Your task to perform on an android device: toggle pop-ups in chrome Image 0: 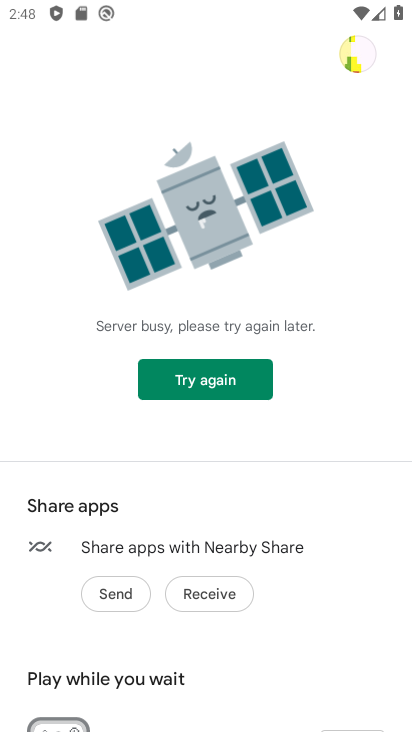
Step 0: press home button
Your task to perform on an android device: toggle pop-ups in chrome Image 1: 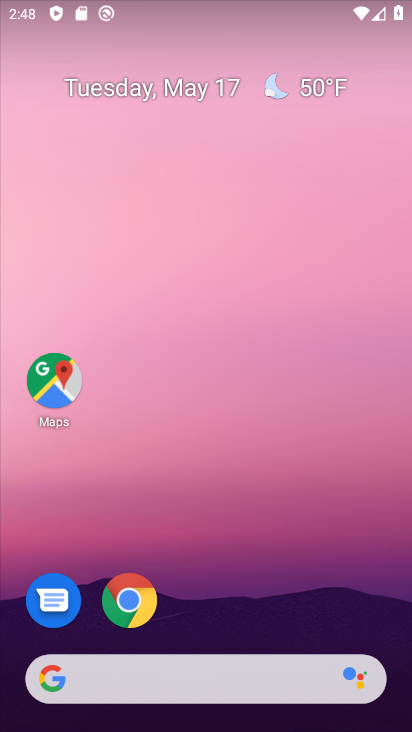
Step 1: click (158, 606)
Your task to perform on an android device: toggle pop-ups in chrome Image 2: 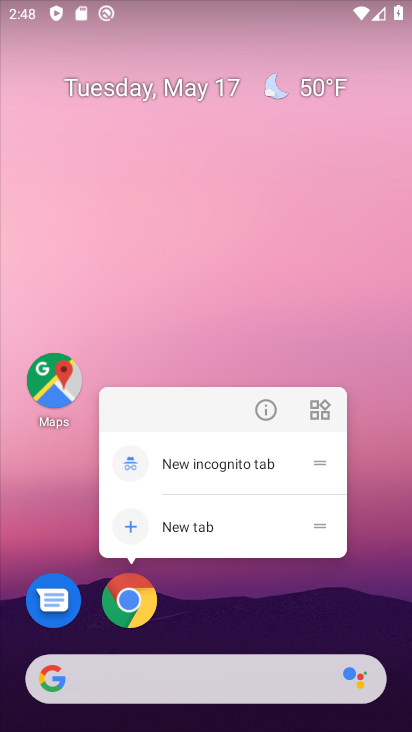
Step 2: click (113, 611)
Your task to perform on an android device: toggle pop-ups in chrome Image 3: 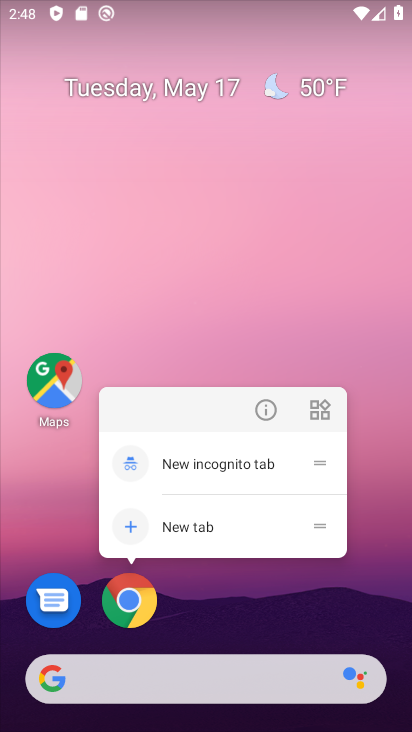
Step 3: click (130, 618)
Your task to perform on an android device: toggle pop-ups in chrome Image 4: 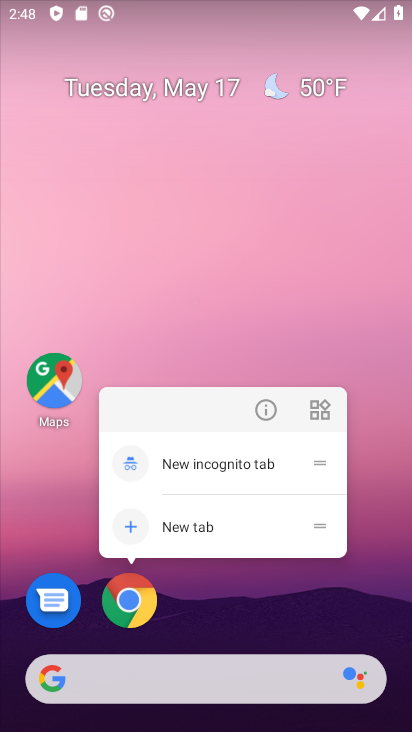
Step 4: click (133, 600)
Your task to perform on an android device: toggle pop-ups in chrome Image 5: 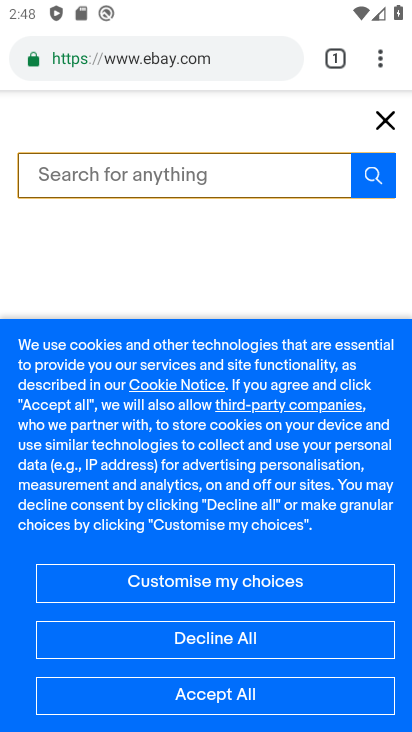
Step 5: click (374, 58)
Your task to perform on an android device: toggle pop-ups in chrome Image 6: 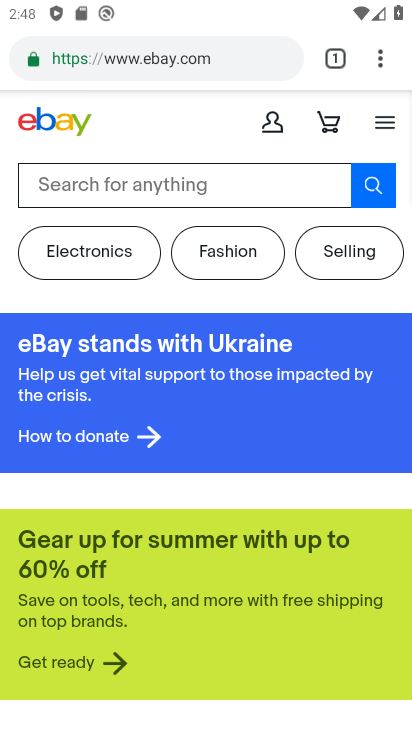
Step 6: drag from (381, 53) to (317, 616)
Your task to perform on an android device: toggle pop-ups in chrome Image 7: 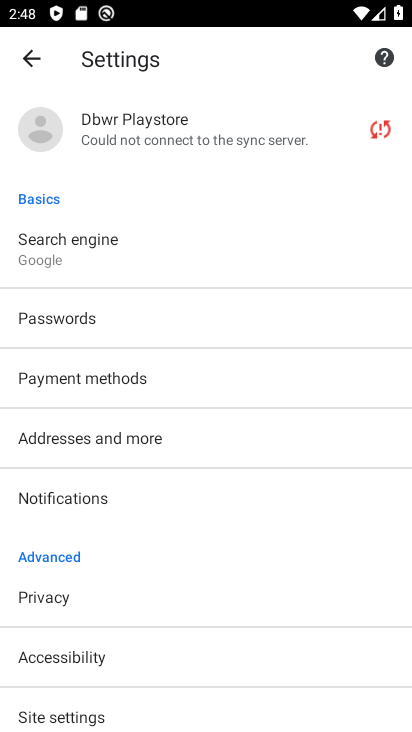
Step 7: drag from (245, 645) to (266, 247)
Your task to perform on an android device: toggle pop-ups in chrome Image 8: 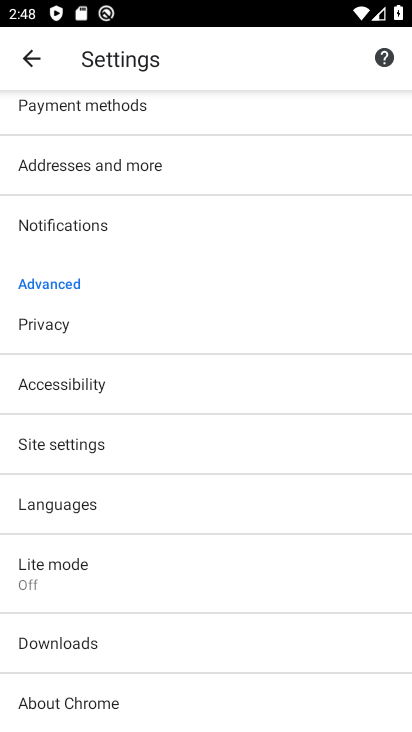
Step 8: click (158, 438)
Your task to perform on an android device: toggle pop-ups in chrome Image 9: 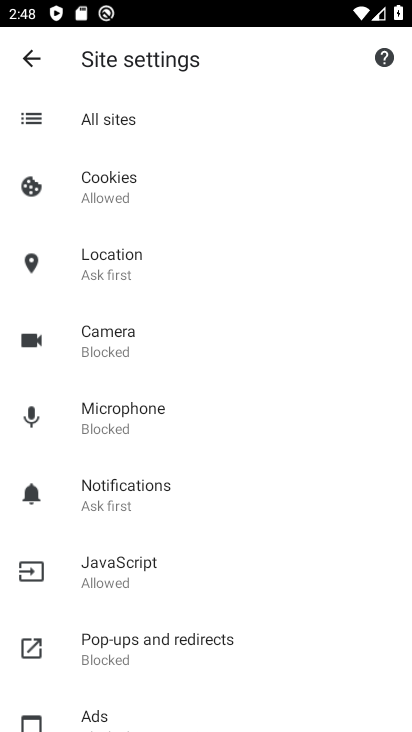
Step 9: click (163, 649)
Your task to perform on an android device: toggle pop-ups in chrome Image 10: 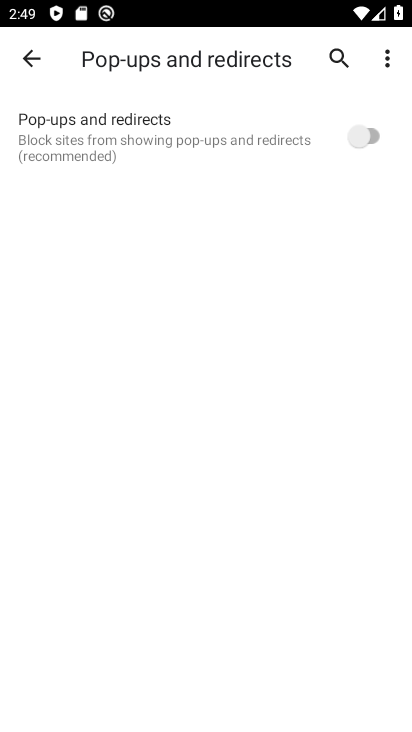
Step 10: click (363, 132)
Your task to perform on an android device: toggle pop-ups in chrome Image 11: 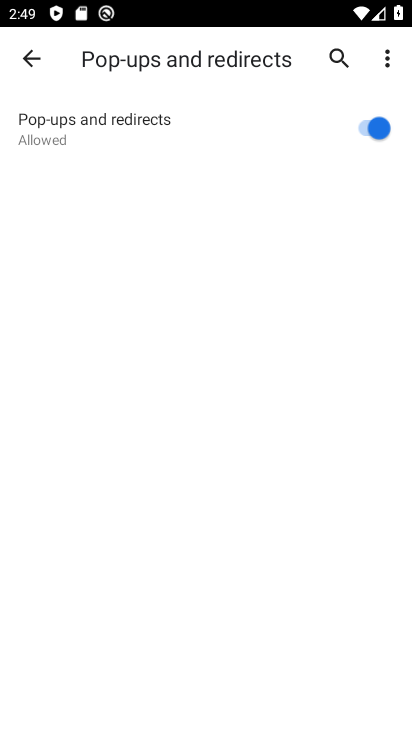
Step 11: task complete